Your task to perform on an android device: open app "DoorDash - Food Delivery" (install if not already installed) and enter user name: "Richard@outlook.com" and password: "informally" Image 0: 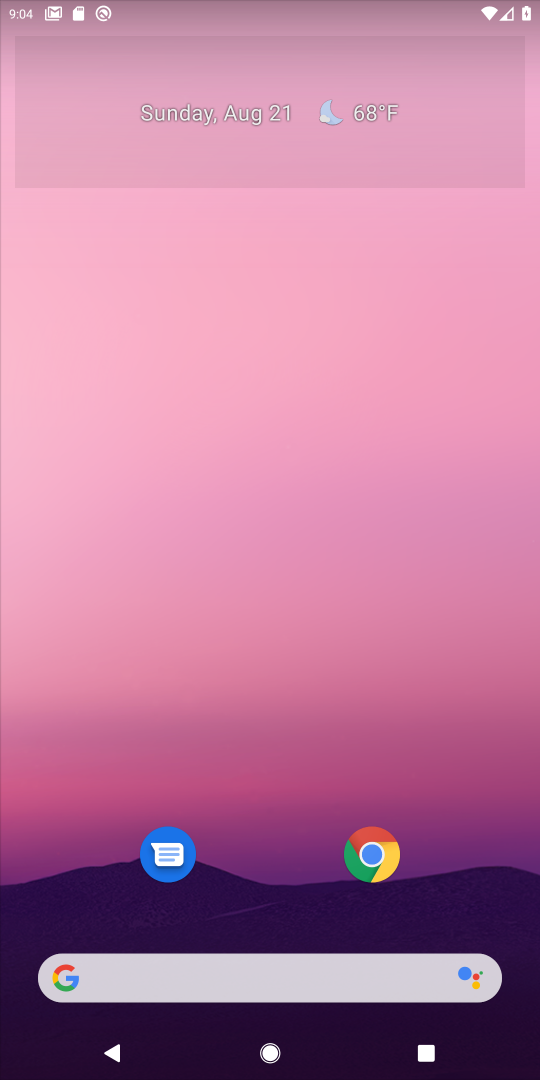
Step 0: drag from (268, 917) to (315, 44)
Your task to perform on an android device: open app "DoorDash - Food Delivery" (install if not already installed) and enter user name: "Richard@outlook.com" and password: "informally" Image 1: 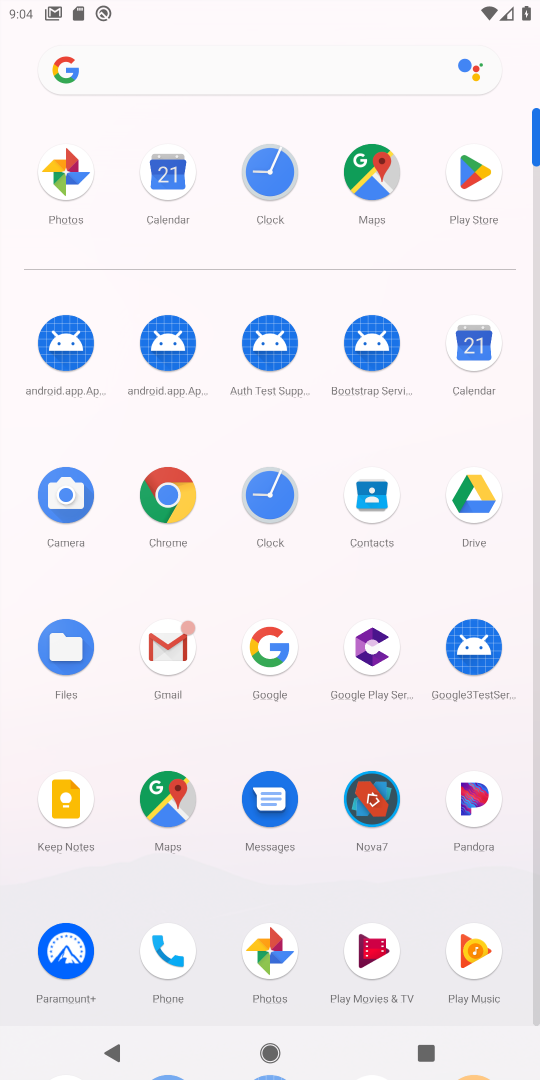
Step 1: click (454, 159)
Your task to perform on an android device: open app "DoorDash - Food Delivery" (install if not already installed) and enter user name: "Richard@outlook.com" and password: "informally" Image 2: 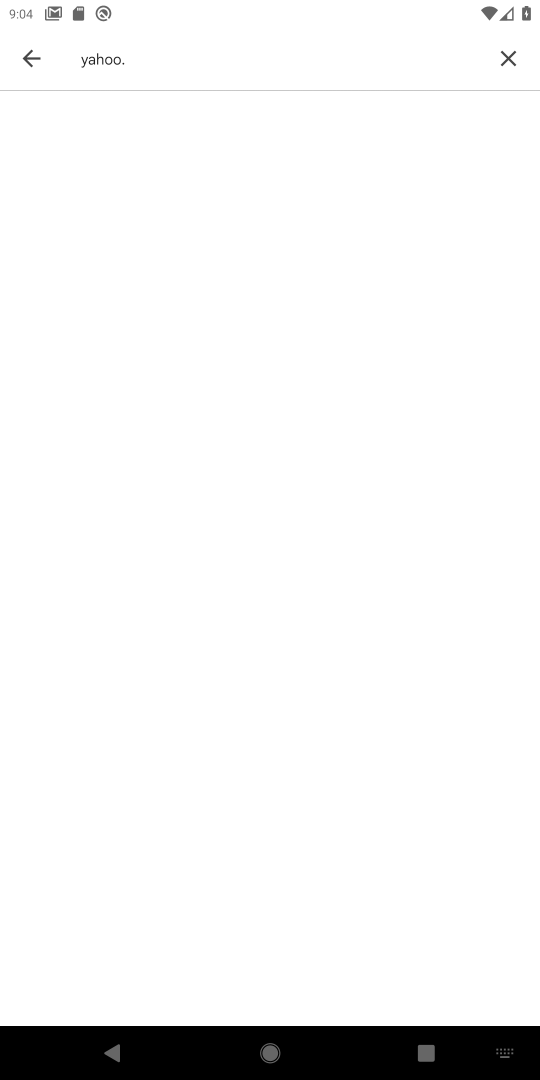
Step 2: click (503, 74)
Your task to perform on an android device: open app "DoorDash - Food Delivery" (install if not already installed) and enter user name: "Richard@outlook.com" and password: "informally" Image 3: 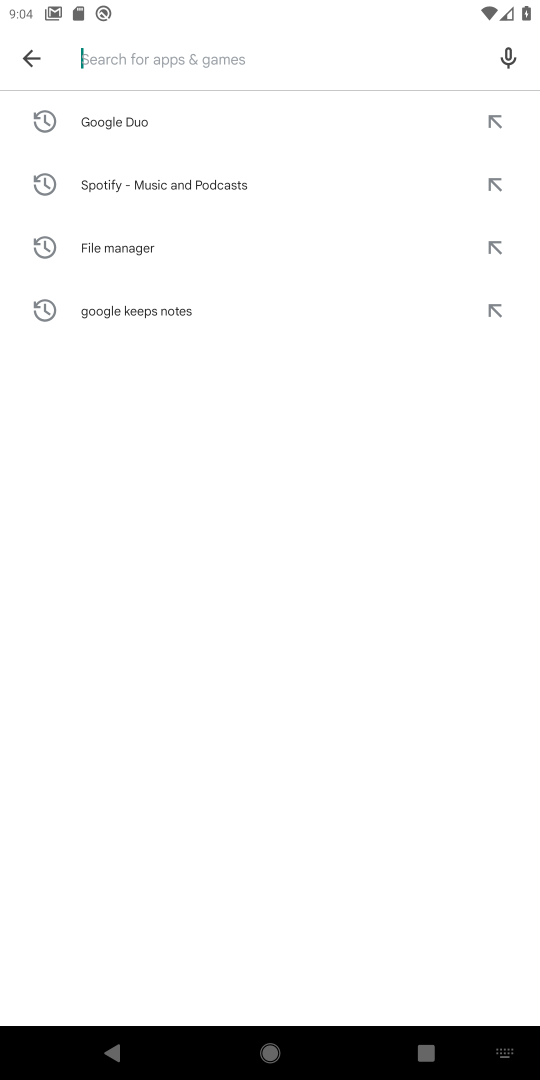
Step 3: type "door dash"
Your task to perform on an android device: open app "DoorDash - Food Delivery" (install if not already installed) and enter user name: "Richard@outlook.com" and password: "informally" Image 4: 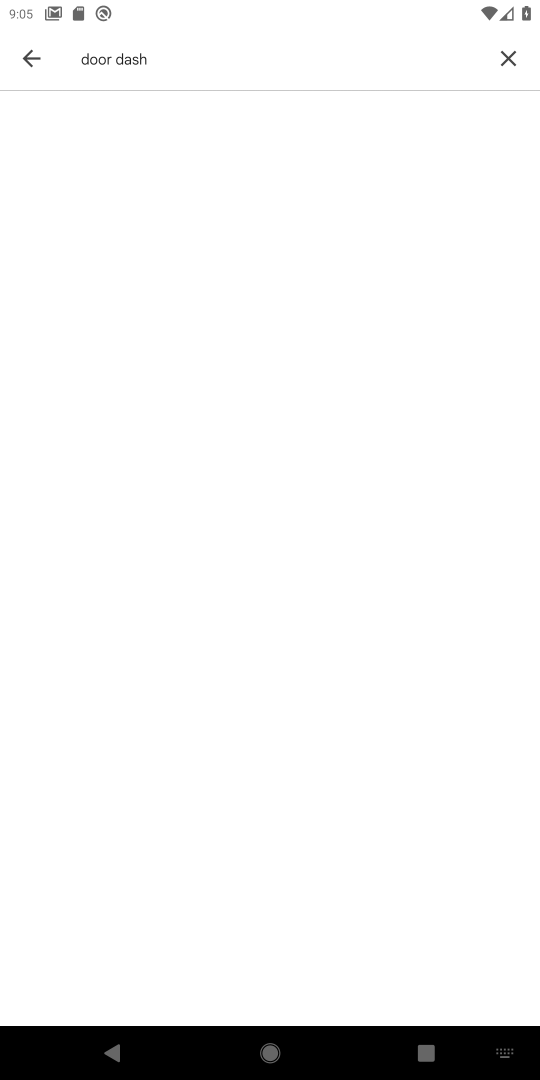
Step 4: task complete